Your task to perform on an android device: set an alarm Image 0: 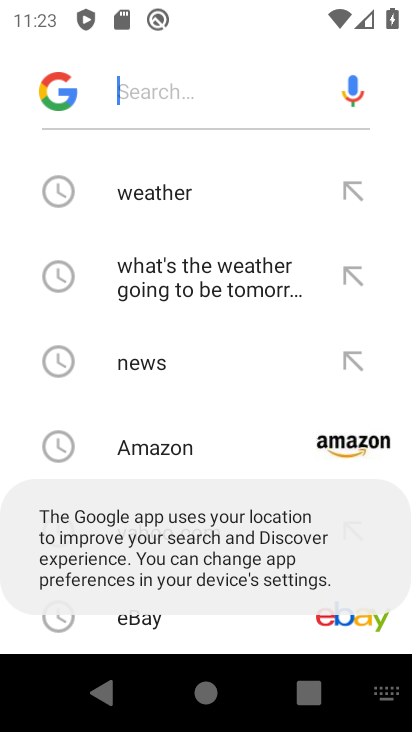
Step 0: press back button
Your task to perform on an android device: set an alarm Image 1: 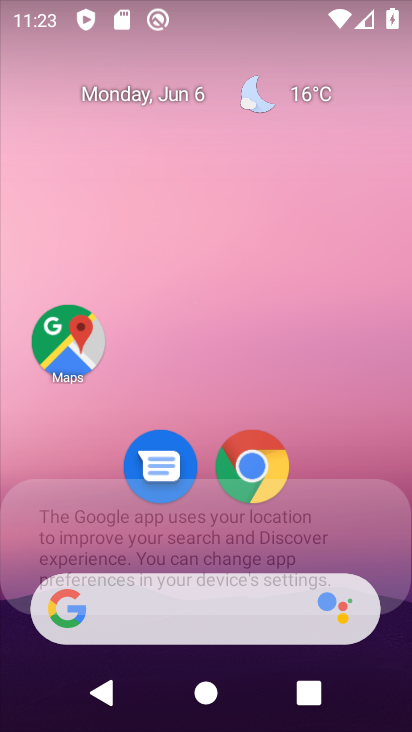
Step 1: drag from (250, 633) to (293, 37)
Your task to perform on an android device: set an alarm Image 2: 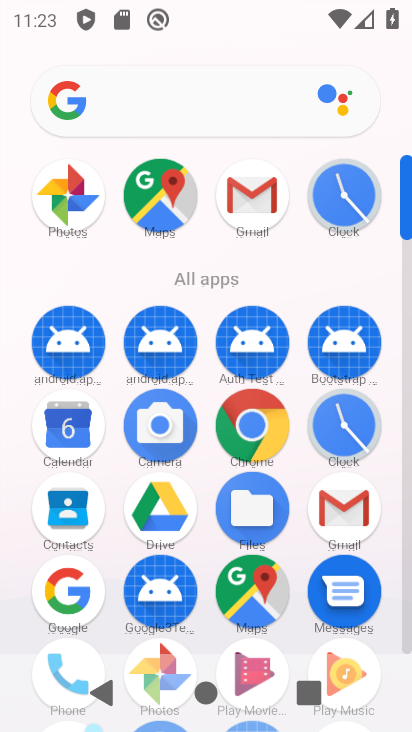
Step 2: click (307, 421)
Your task to perform on an android device: set an alarm Image 3: 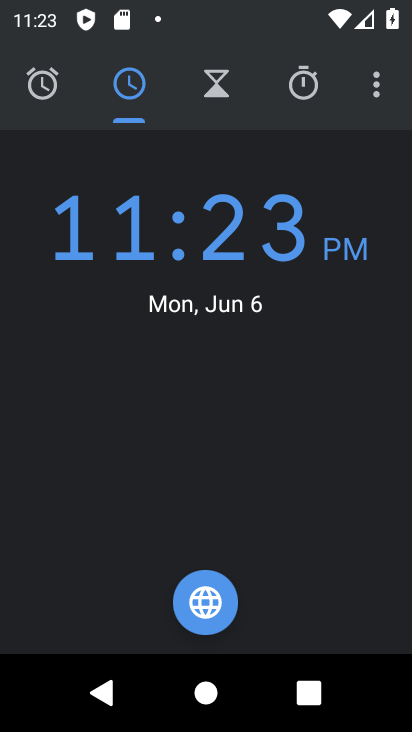
Step 3: click (39, 101)
Your task to perform on an android device: set an alarm Image 4: 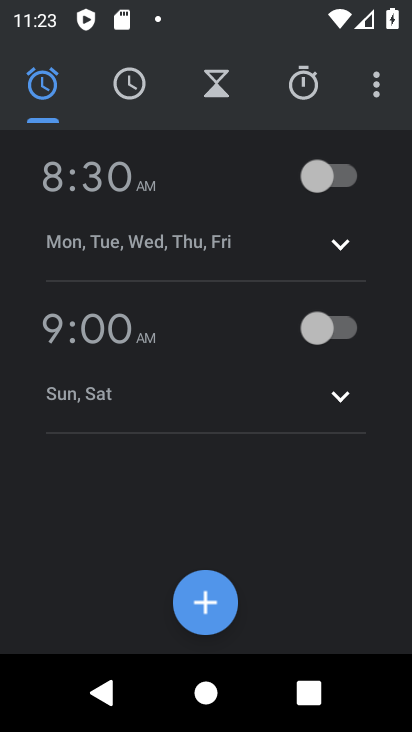
Step 4: click (334, 169)
Your task to perform on an android device: set an alarm Image 5: 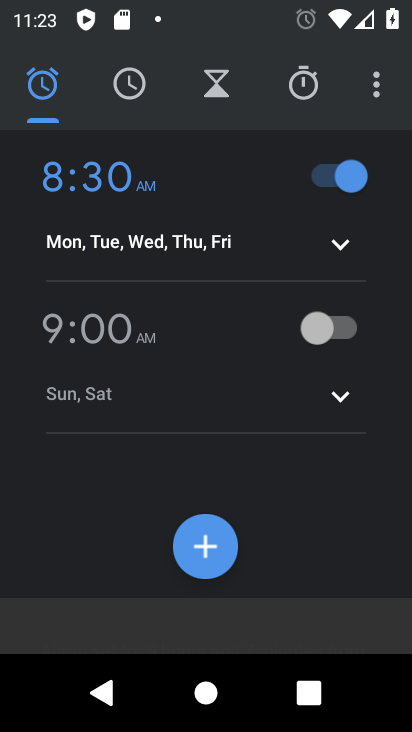
Step 5: task complete